Your task to perform on an android device: Open wifi settings Image 0: 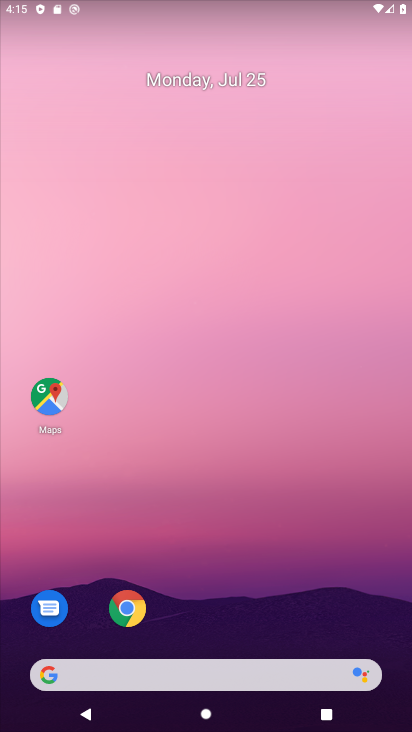
Step 0: drag from (240, 627) to (207, 6)
Your task to perform on an android device: Open wifi settings Image 1: 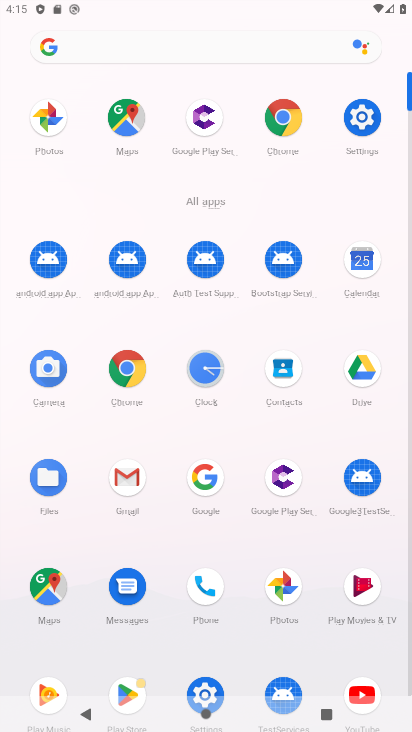
Step 1: click (197, 688)
Your task to perform on an android device: Open wifi settings Image 2: 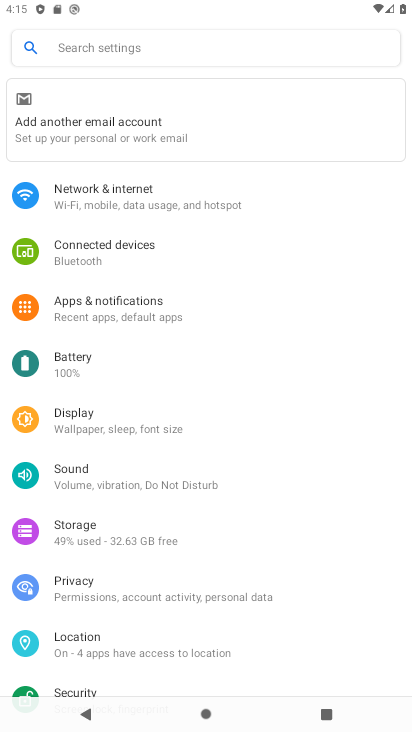
Step 2: click (133, 200)
Your task to perform on an android device: Open wifi settings Image 3: 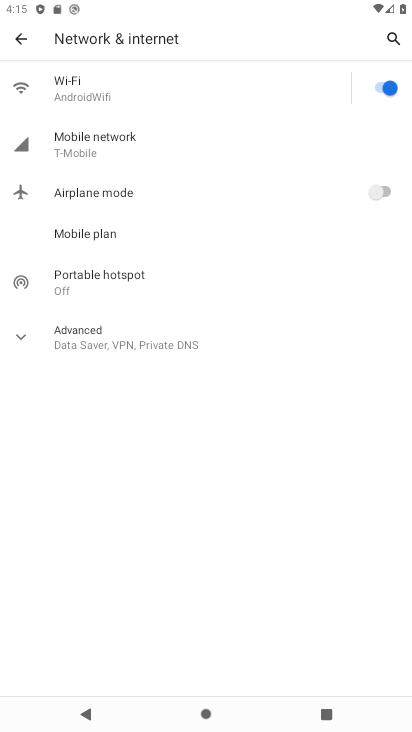
Step 3: click (107, 94)
Your task to perform on an android device: Open wifi settings Image 4: 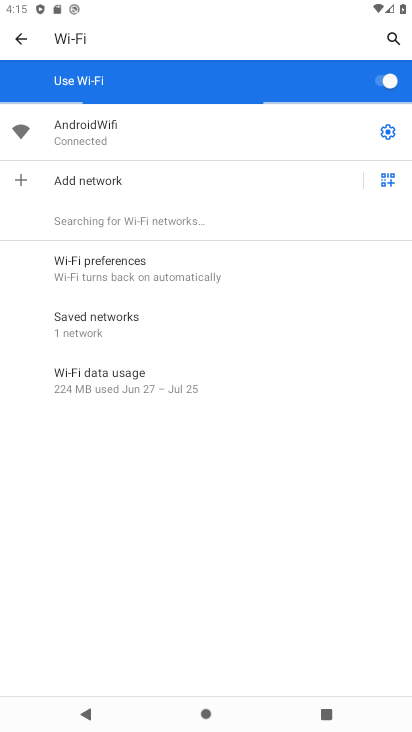
Step 4: task complete